Your task to perform on an android device: delete the emails in spam in the gmail app Image 0: 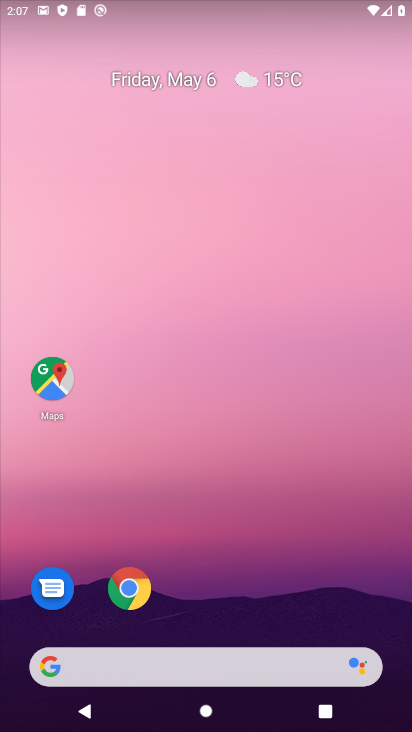
Step 0: drag from (219, 627) to (236, 190)
Your task to perform on an android device: delete the emails in spam in the gmail app Image 1: 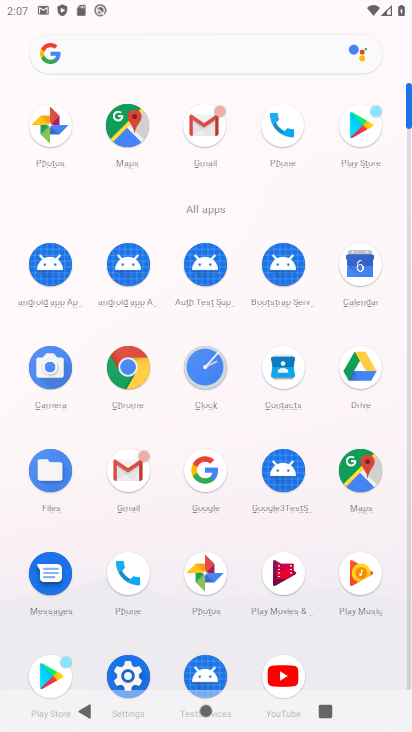
Step 1: click (127, 461)
Your task to perform on an android device: delete the emails in spam in the gmail app Image 2: 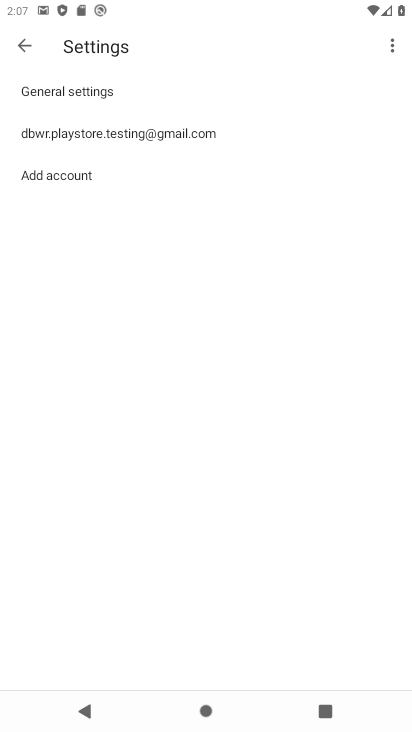
Step 2: click (28, 49)
Your task to perform on an android device: delete the emails in spam in the gmail app Image 3: 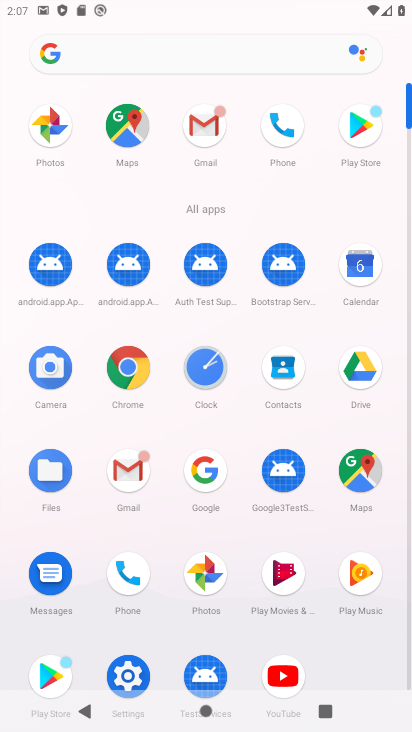
Step 3: click (106, 467)
Your task to perform on an android device: delete the emails in spam in the gmail app Image 4: 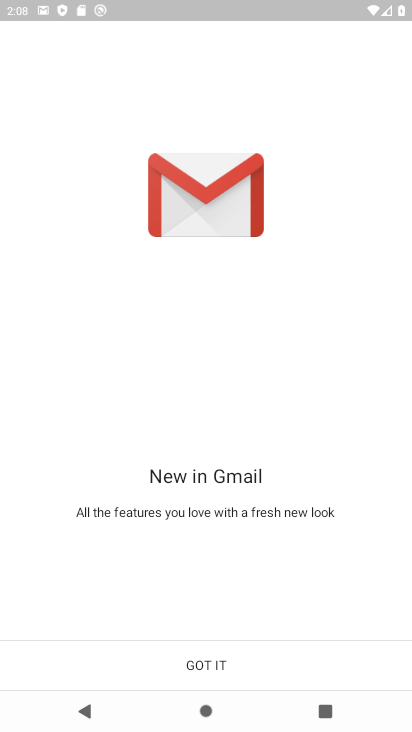
Step 4: click (190, 667)
Your task to perform on an android device: delete the emails in spam in the gmail app Image 5: 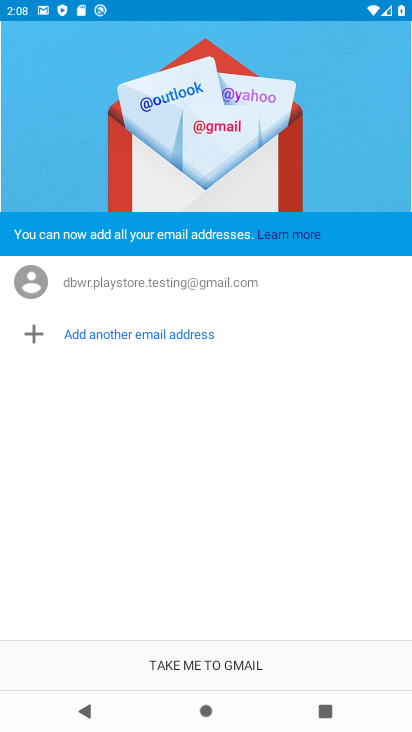
Step 5: click (190, 667)
Your task to perform on an android device: delete the emails in spam in the gmail app Image 6: 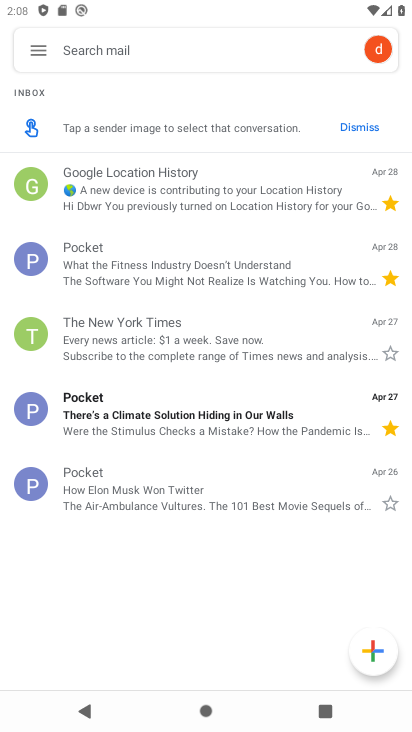
Step 6: click (37, 50)
Your task to perform on an android device: delete the emails in spam in the gmail app Image 7: 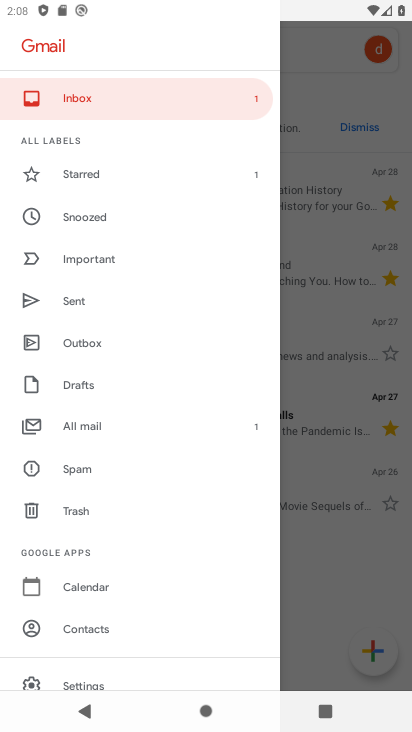
Step 7: click (89, 471)
Your task to perform on an android device: delete the emails in spam in the gmail app Image 8: 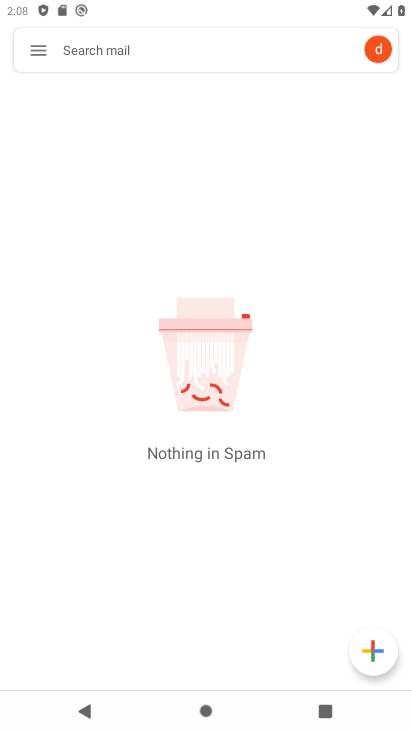
Step 8: task complete